Your task to perform on an android device: turn on sleep mode Image 0: 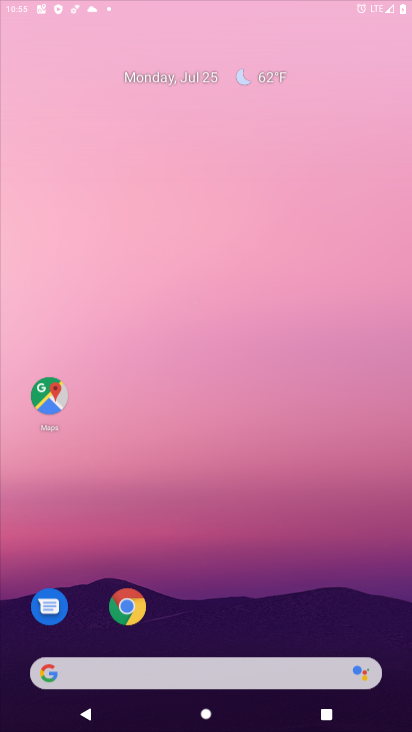
Step 0: click (143, 617)
Your task to perform on an android device: turn on sleep mode Image 1: 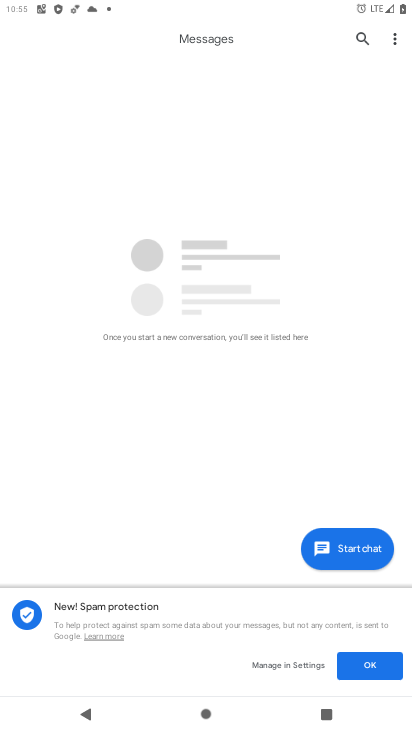
Step 1: press home button
Your task to perform on an android device: turn on sleep mode Image 2: 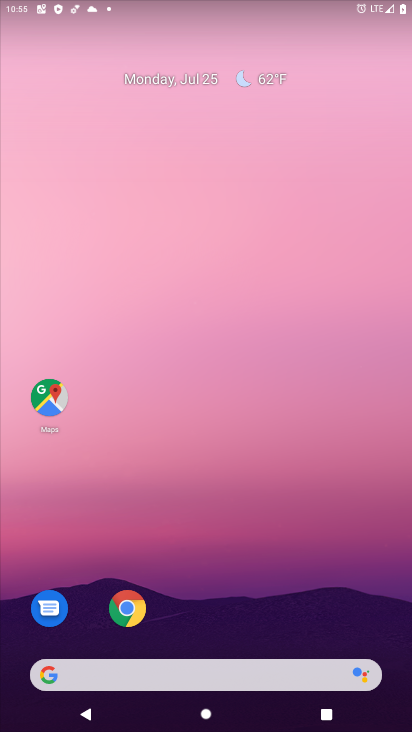
Step 2: drag from (193, 626) to (208, 9)
Your task to perform on an android device: turn on sleep mode Image 3: 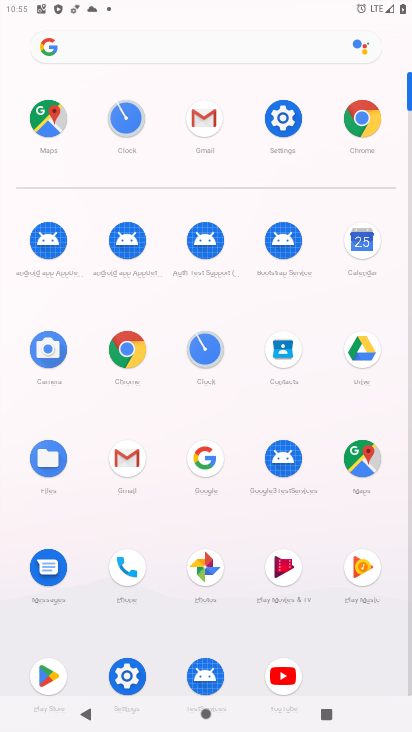
Step 3: click (128, 675)
Your task to perform on an android device: turn on sleep mode Image 4: 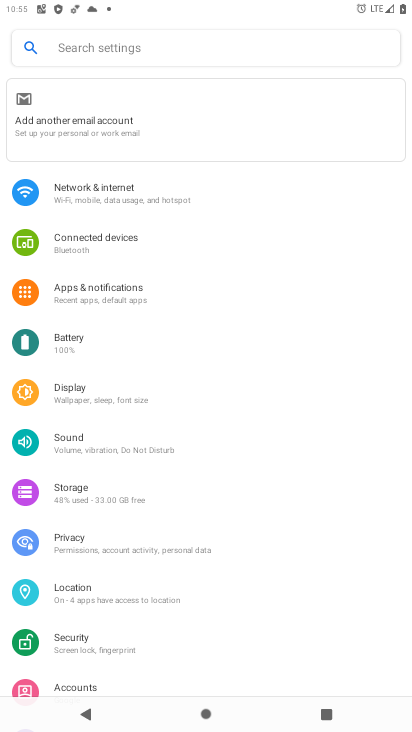
Step 4: click (136, 47)
Your task to perform on an android device: turn on sleep mode Image 5: 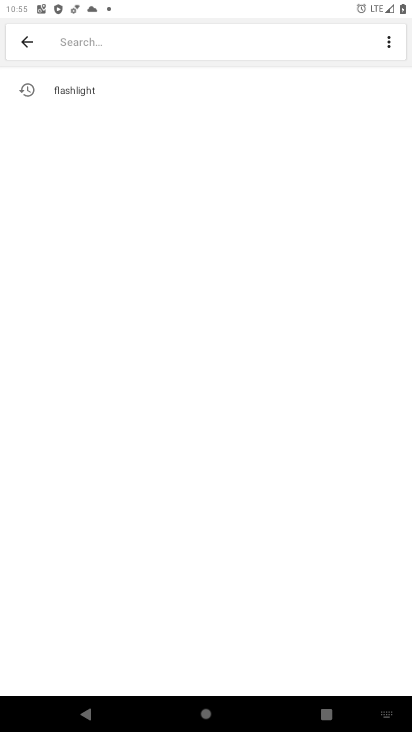
Step 5: type "sleep mode"
Your task to perform on an android device: turn on sleep mode Image 6: 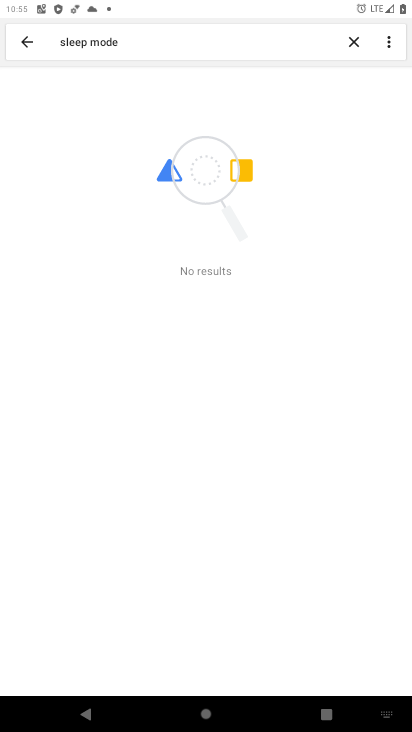
Step 6: click (100, 98)
Your task to perform on an android device: turn on sleep mode Image 7: 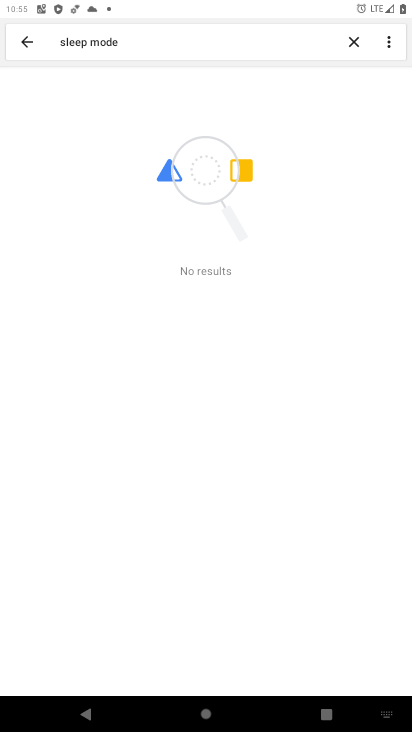
Step 7: click (99, 100)
Your task to perform on an android device: turn on sleep mode Image 8: 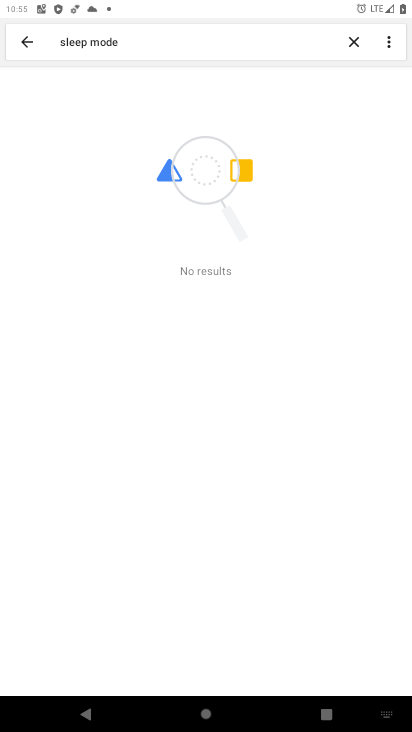
Step 8: task complete